Your task to perform on an android device: open a new tab in the chrome app Image 0: 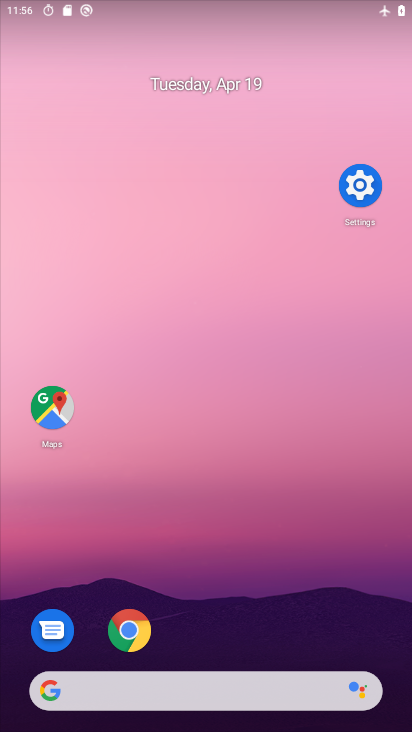
Step 0: drag from (179, 383) to (204, 175)
Your task to perform on an android device: open a new tab in the chrome app Image 1: 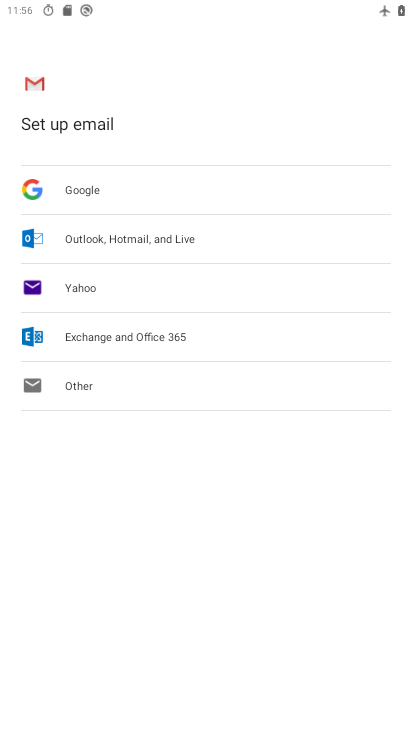
Step 1: press home button
Your task to perform on an android device: open a new tab in the chrome app Image 2: 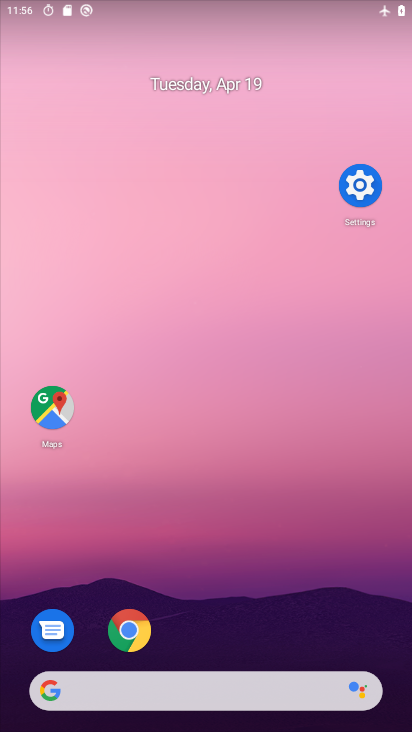
Step 2: drag from (218, 463) to (219, 207)
Your task to perform on an android device: open a new tab in the chrome app Image 3: 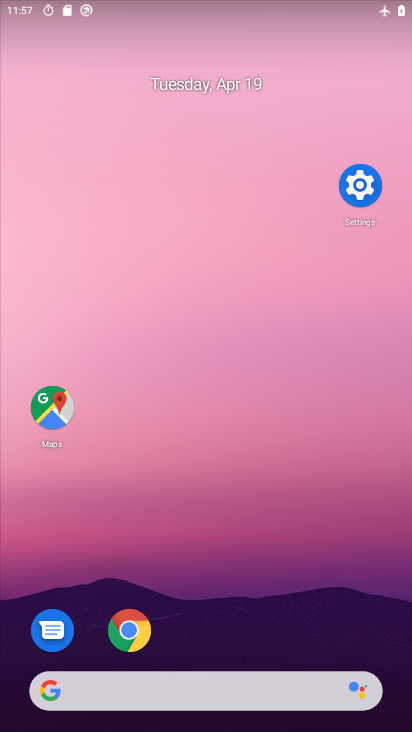
Step 3: drag from (207, 653) to (303, 161)
Your task to perform on an android device: open a new tab in the chrome app Image 4: 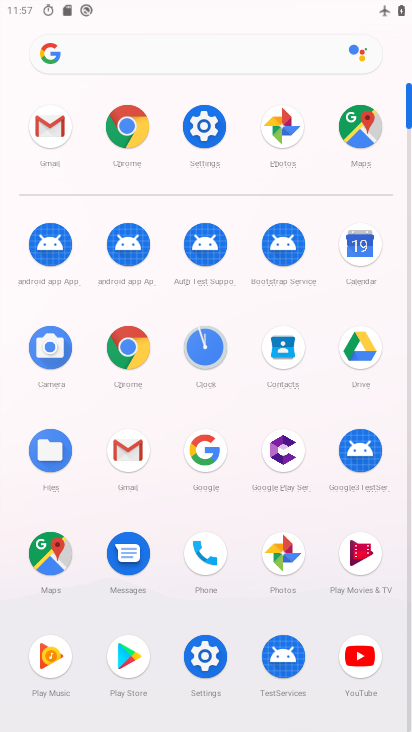
Step 4: click (124, 150)
Your task to perform on an android device: open a new tab in the chrome app Image 5: 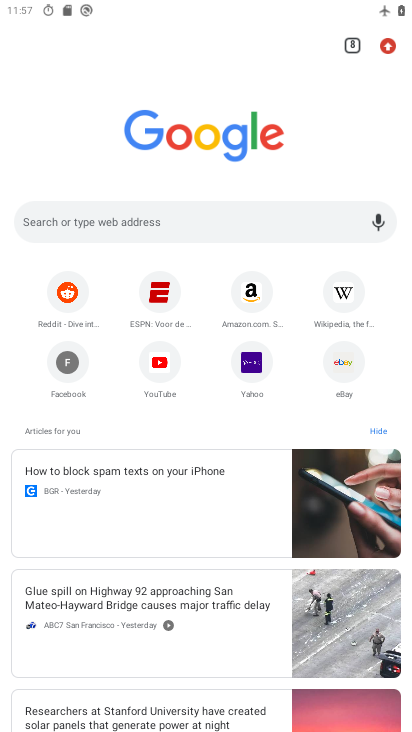
Step 5: click (352, 157)
Your task to perform on an android device: open a new tab in the chrome app Image 6: 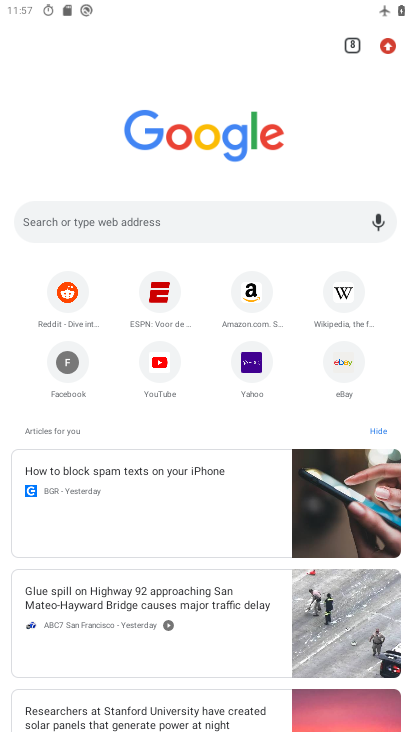
Step 6: drag from (352, 69) to (333, 222)
Your task to perform on an android device: open a new tab in the chrome app Image 7: 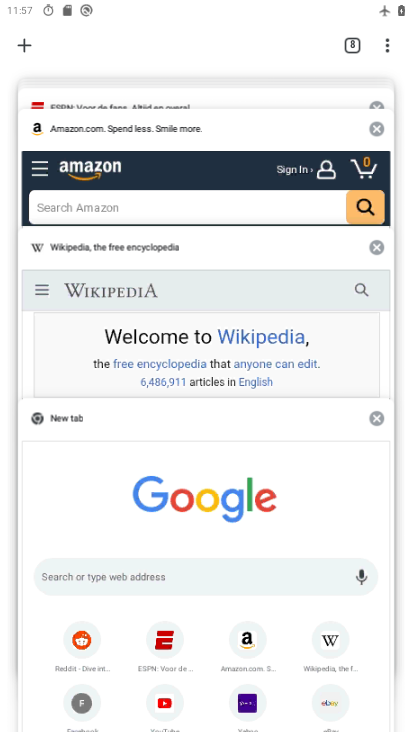
Step 7: click (29, 45)
Your task to perform on an android device: open a new tab in the chrome app Image 8: 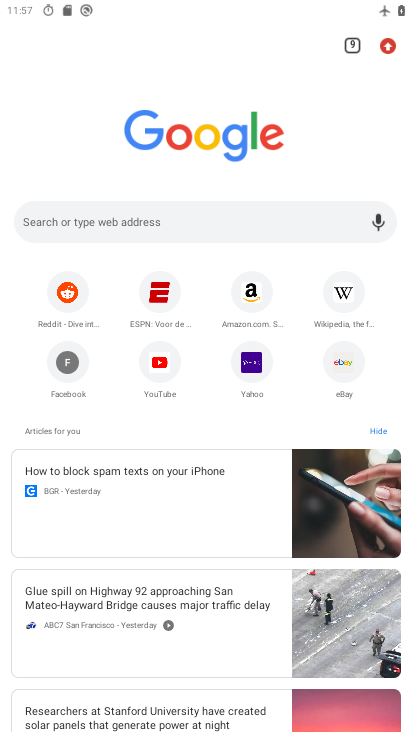
Step 8: task complete